Your task to perform on an android device: What's the news in Brazil? Image 0: 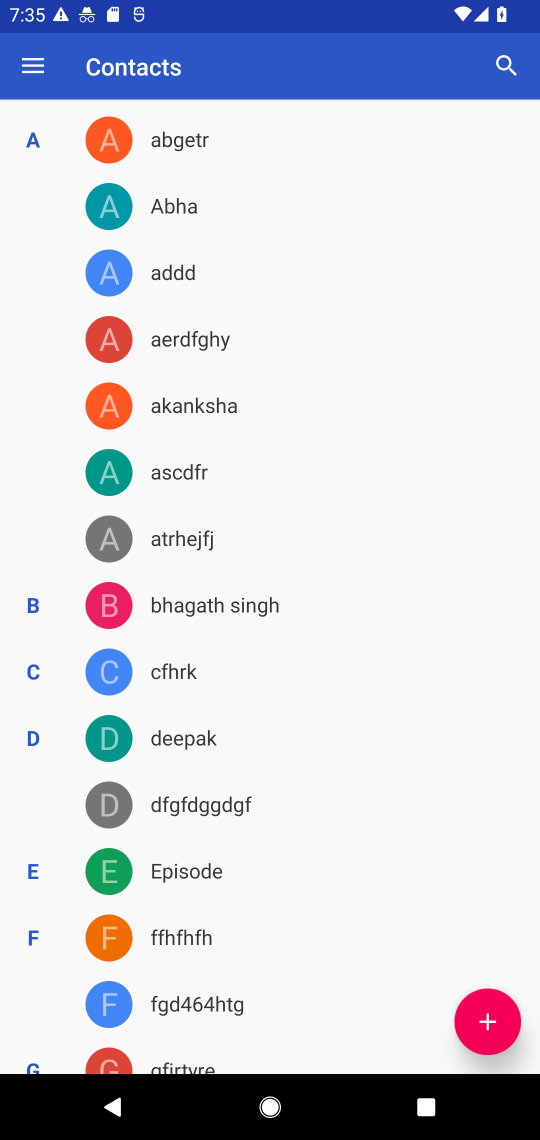
Step 0: press home button
Your task to perform on an android device: What's the news in Brazil? Image 1: 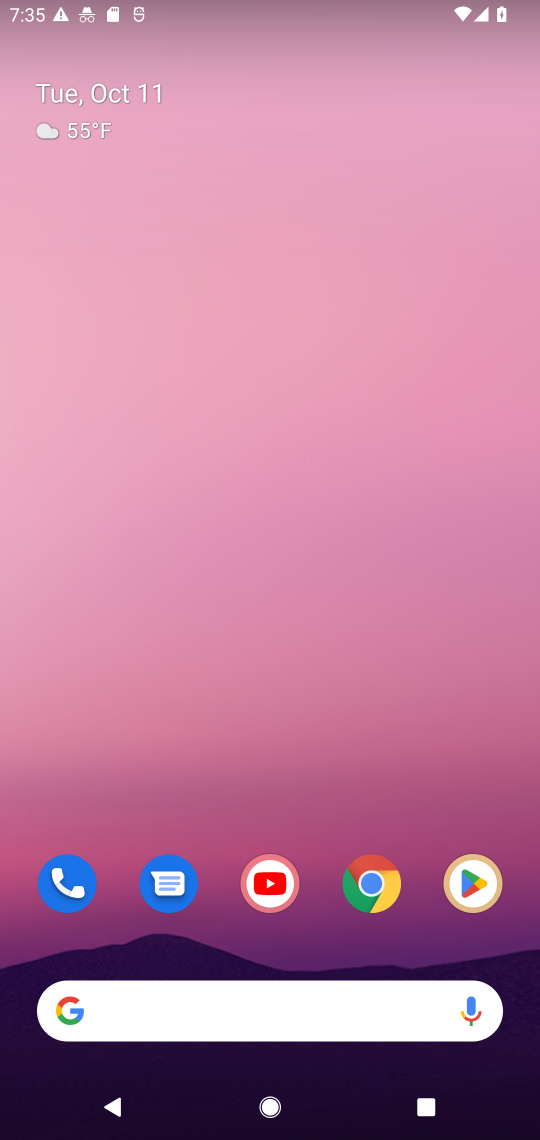
Step 1: drag from (311, 942) to (427, 28)
Your task to perform on an android device: What's the news in Brazil? Image 2: 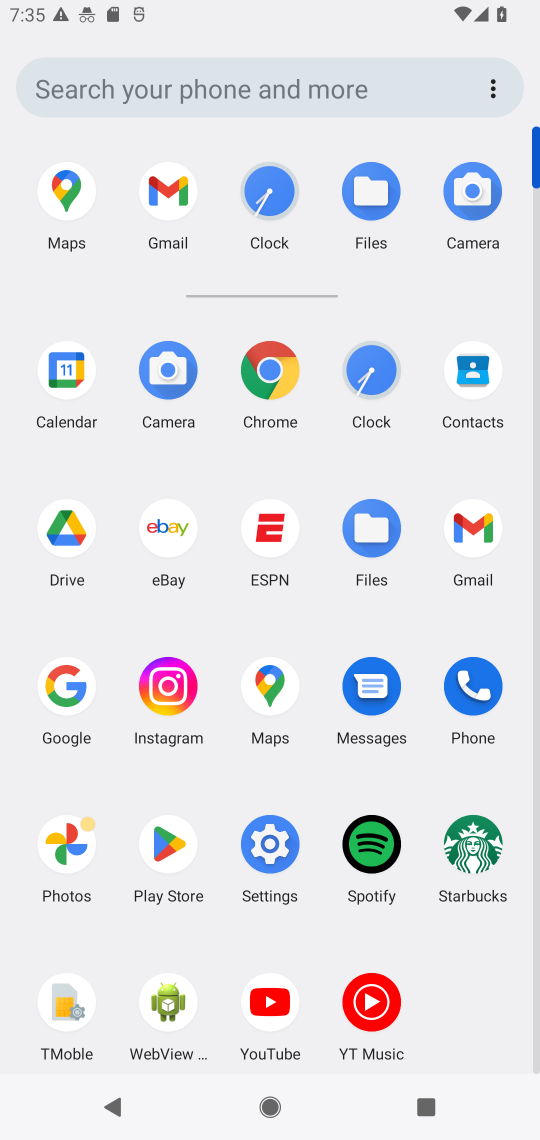
Step 2: click (269, 372)
Your task to perform on an android device: What's the news in Brazil? Image 3: 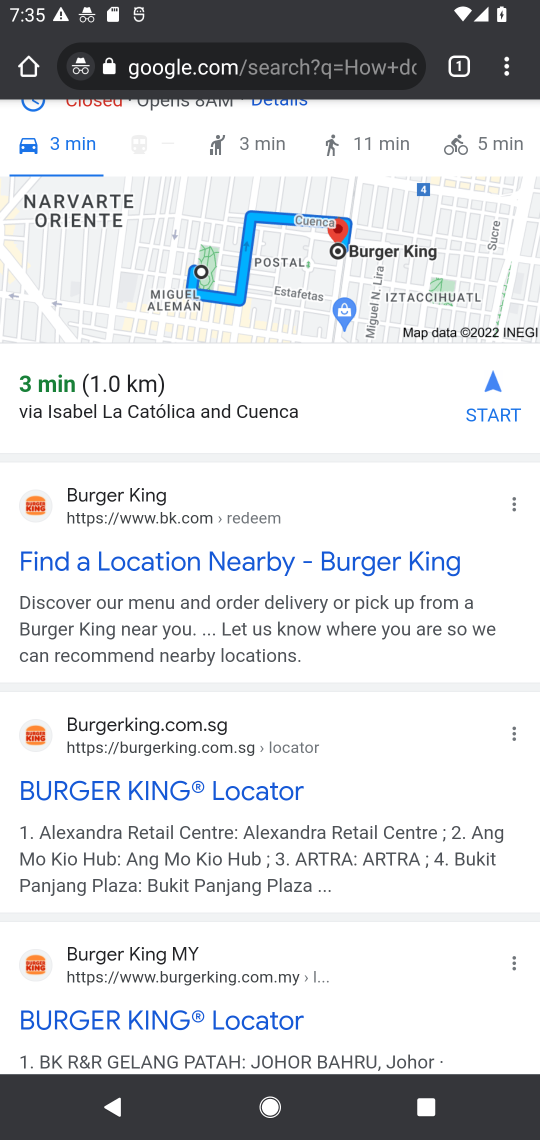
Step 3: click (284, 78)
Your task to perform on an android device: What's the news in Brazil? Image 4: 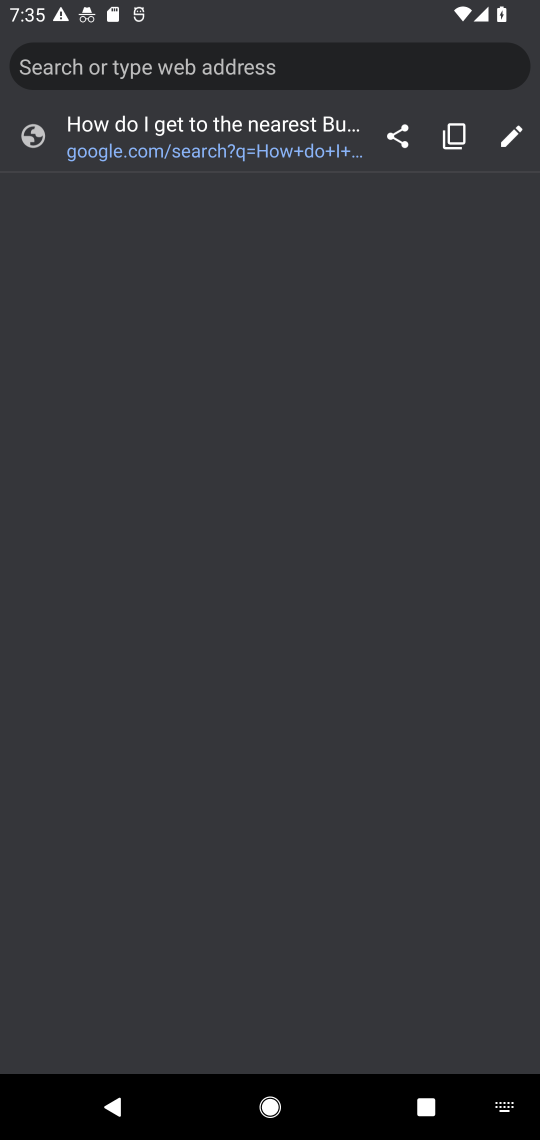
Step 4: type "What's the news in Brazil?"
Your task to perform on an android device: What's the news in Brazil? Image 5: 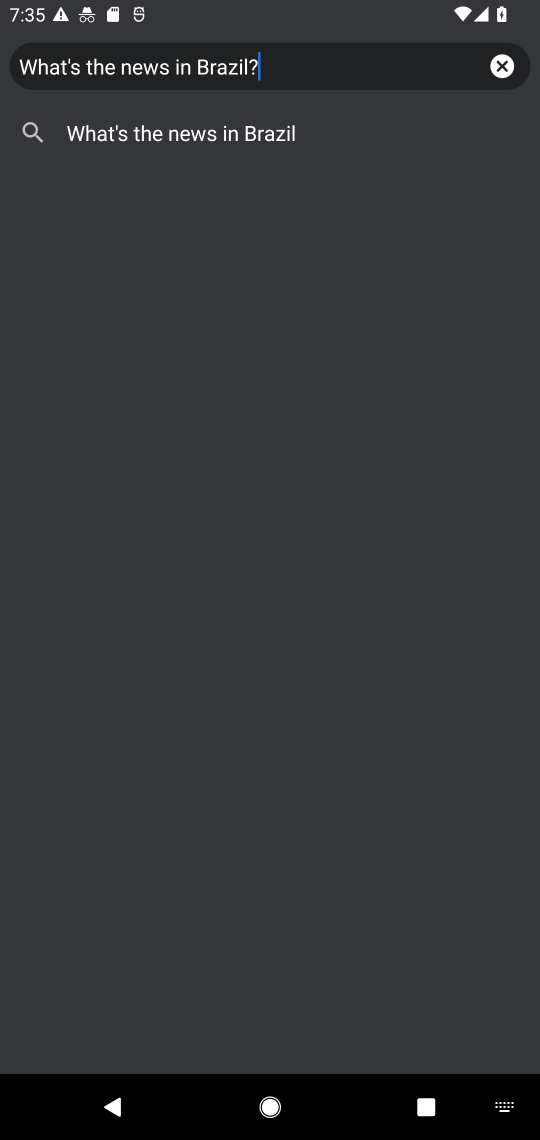
Step 5: press enter
Your task to perform on an android device: What's the news in Brazil? Image 6: 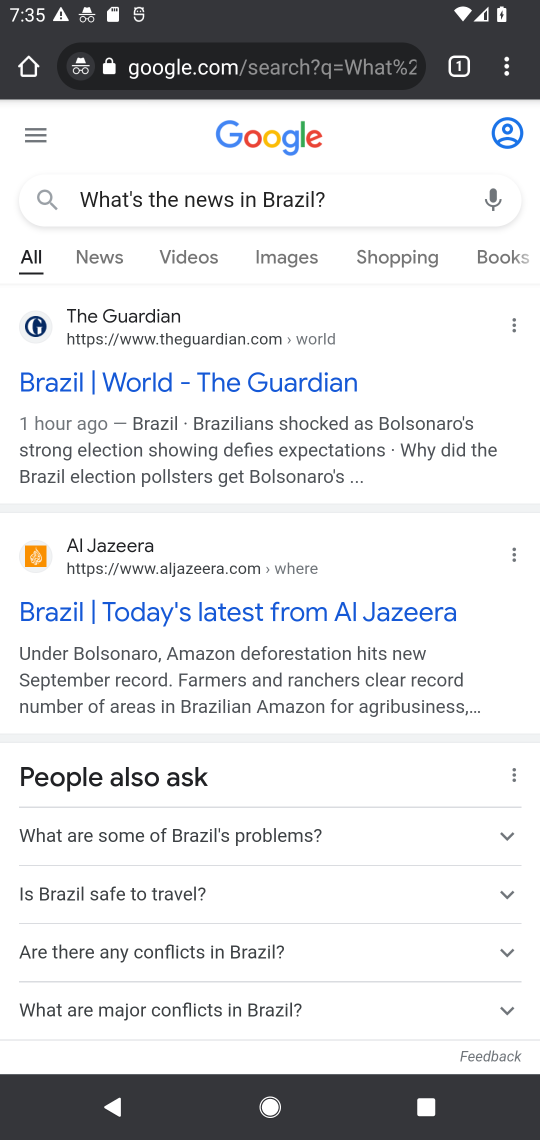
Step 6: click (237, 374)
Your task to perform on an android device: What's the news in Brazil? Image 7: 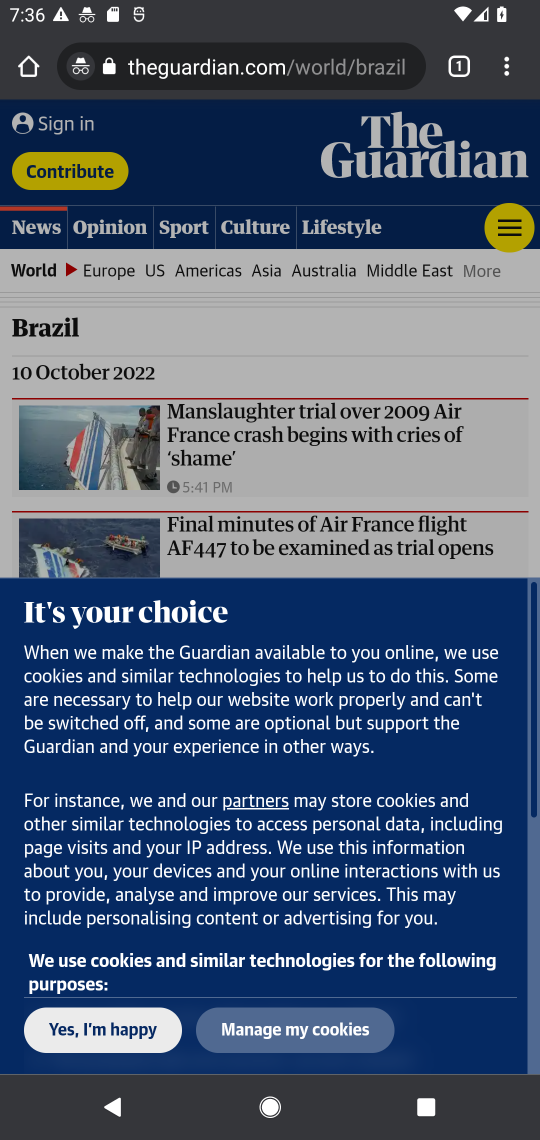
Step 7: task complete